Your task to perform on an android device: Show me the alarms in the clock app Image 0: 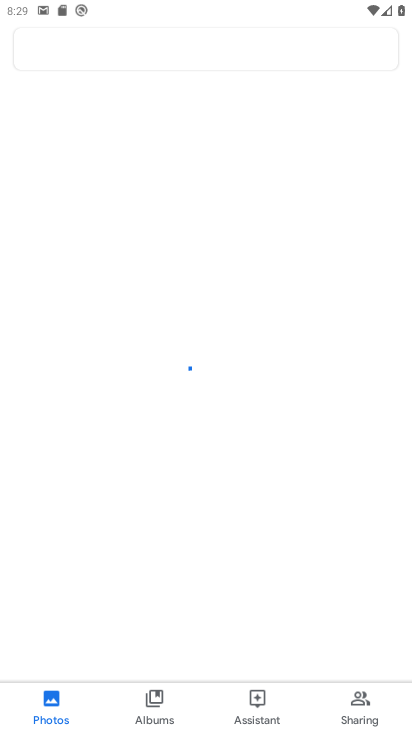
Step 0: press home button
Your task to perform on an android device: Show me the alarms in the clock app Image 1: 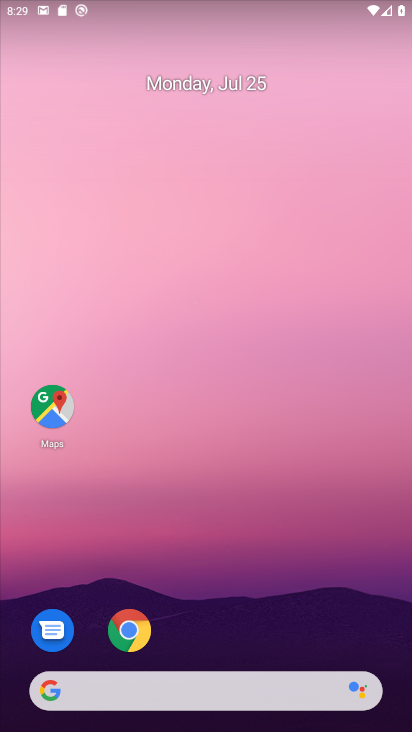
Step 1: drag from (261, 633) to (181, 103)
Your task to perform on an android device: Show me the alarms in the clock app Image 2: 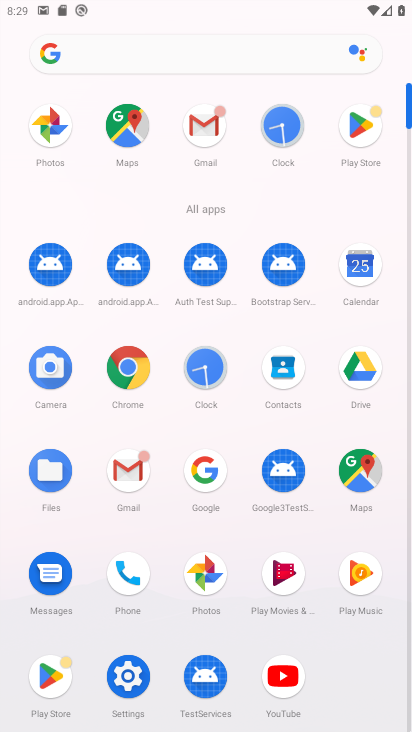
Step 2: click (283, 120)
Your task to perform on an android device: Show me the alarms in the clock app Image 3: 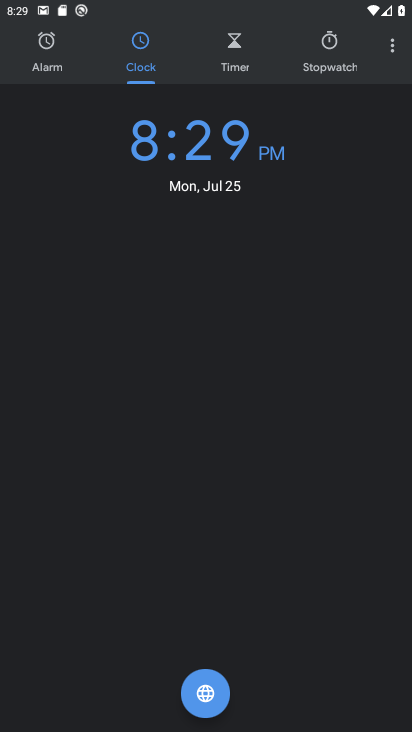
Step 3: click (57, 65)
Your task to perform on an android device: Show me the alarms in the clock app Image 4: 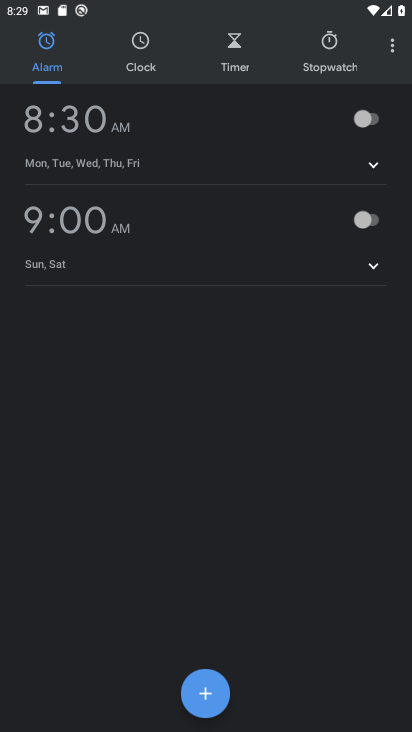
Step 4: task complete